Your task to perform on an android device: see tabs open on other devices in the chrome app Image 0: 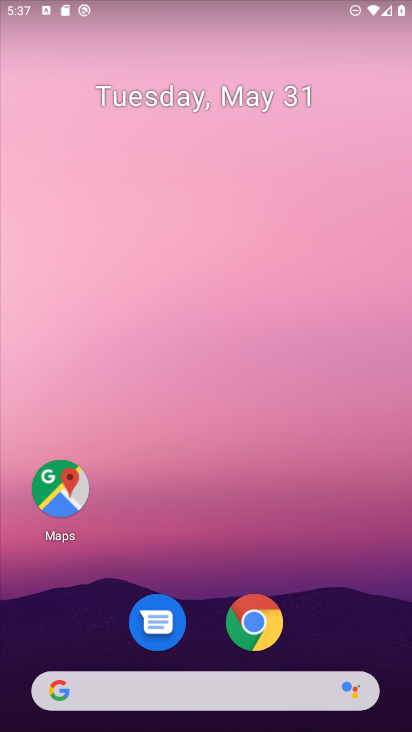
Step 0: drag from (202, 614) to (146, 10)
Your task to perform on an android device: see tabs open on other devices in the chrome app Image 1: 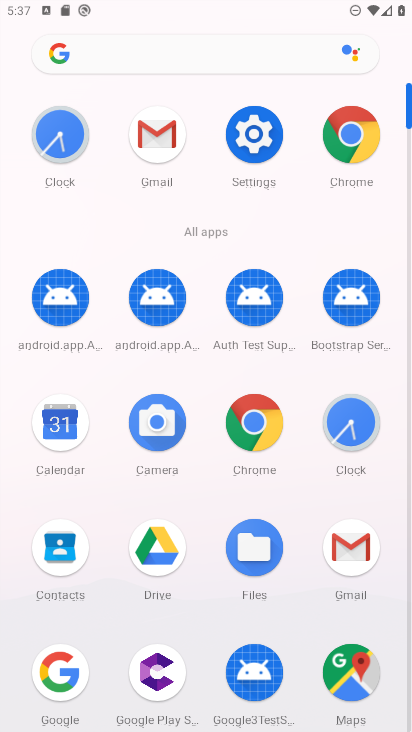
Step 1: click (273, 421)
Your task to perform on an android device: see tabs open on other devices in the chrome app Image 2: 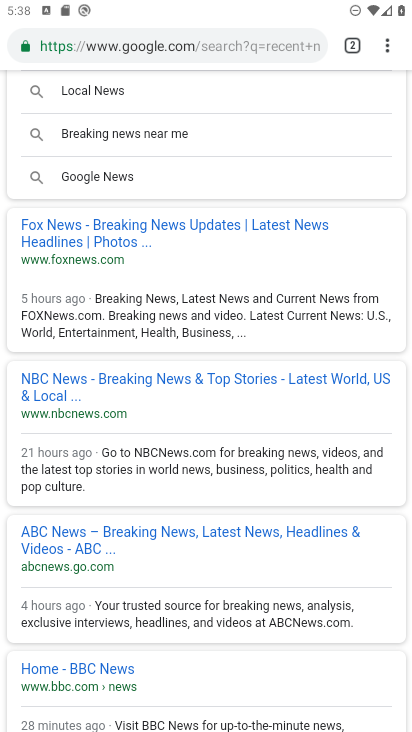
Step 2: task complete